Your task to perform on an android device: Open the Play Movies app and select the watchlist tab. Image 0: 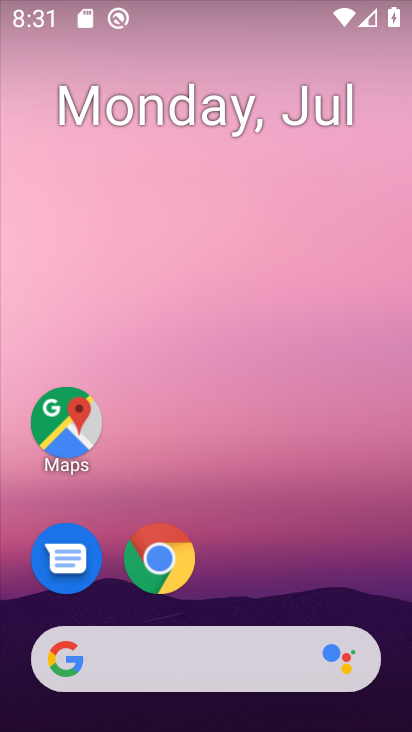
Step 0: drag from (360, 582) to (369, 147)
Your task to perform on an android device: Open the Play Movies app and select the watchlist tab. Image 1: 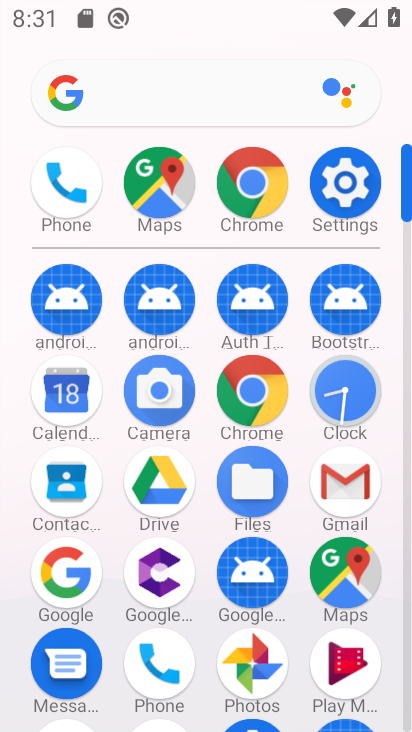
Step 1: click (348, 655)
Your task to perform on an android device: Open the Play Movies app and select the watchlist tab. Image 2: 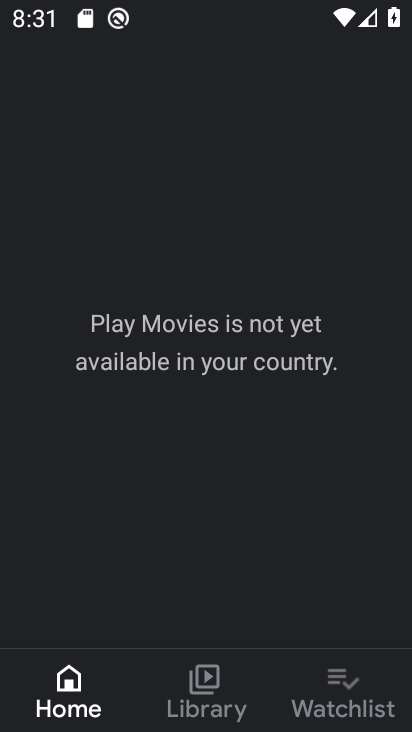
Step 2: click (341, 680)
Your task to perform on an android device: Open the Play Movies app and select the watchlist tab. Image 3: 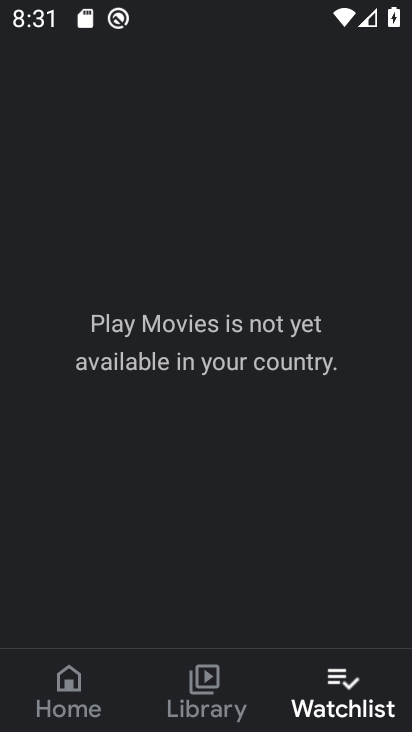
Step 3: task complete